Your task to perform on an android device: Open notification settings Image 0: 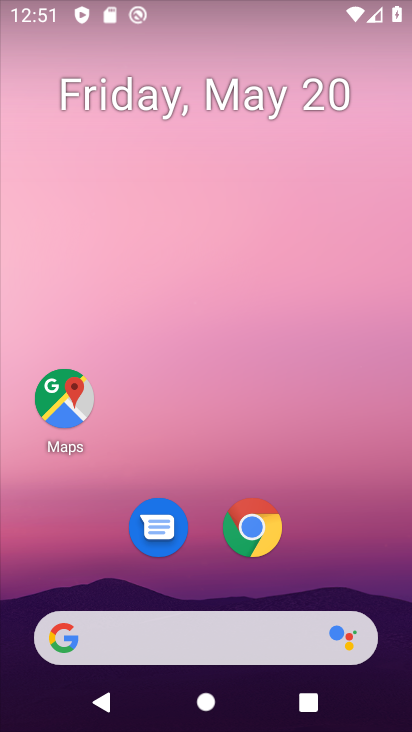
Step 0: drag from (241, 469) to (228, 27)
Your task to perform on an android device: Open notification settings Image 1: 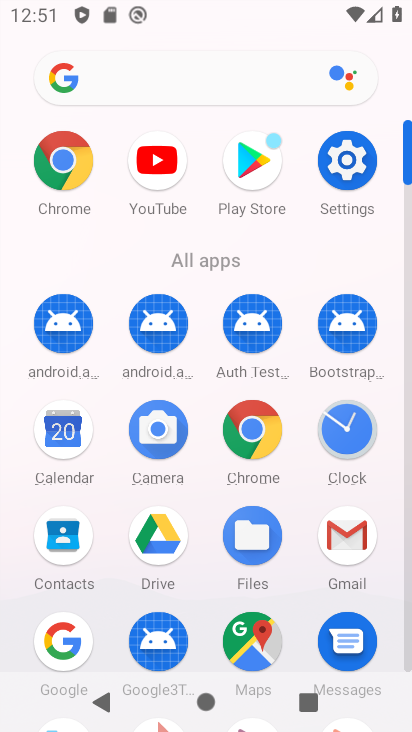
Step 1: click (339, 154)
Your task to perform on an android device: Open notification settings Image 2: 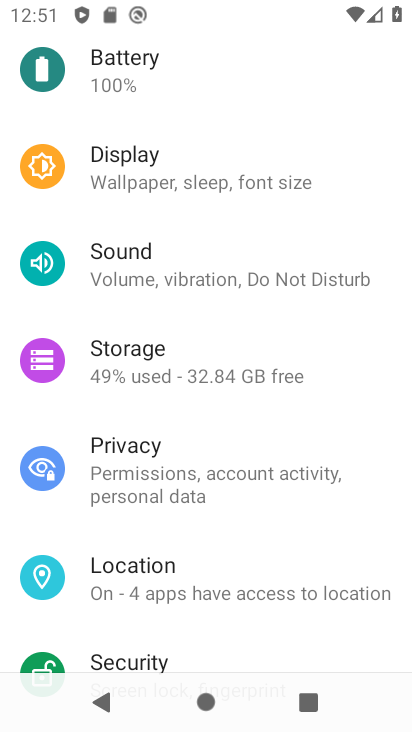
Step 2: drag from (253, 222) to (240, 561)
Your task to perform on an android device: Open notification settings Image 3: 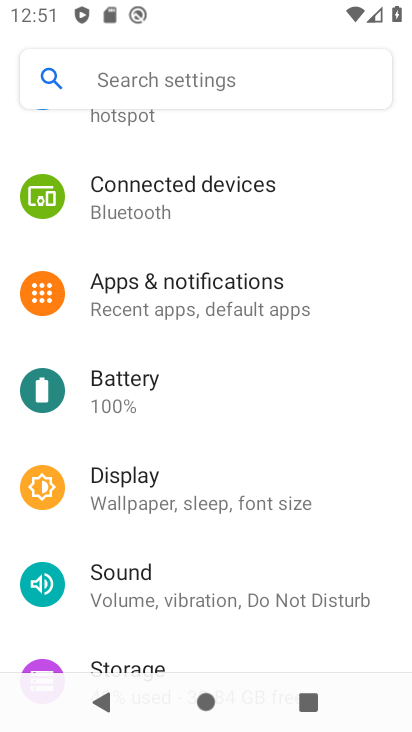
Step 3: click (257, 298)
Your task to perform on an android device: Open notification settings Image 4: 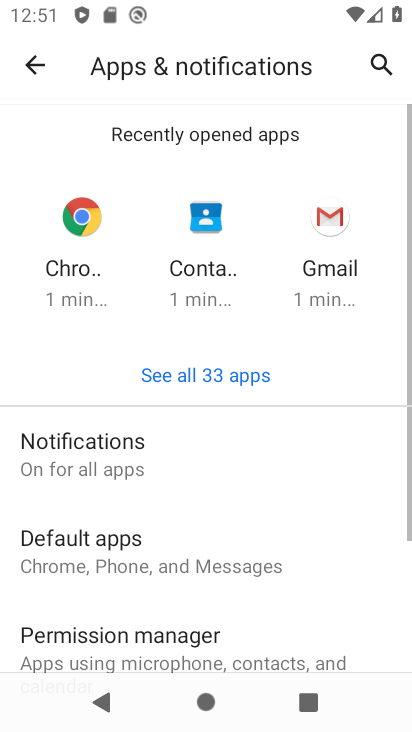
Step 4: click (178, 457)
Your task to perform on an android device: Open notification settings Image 5: 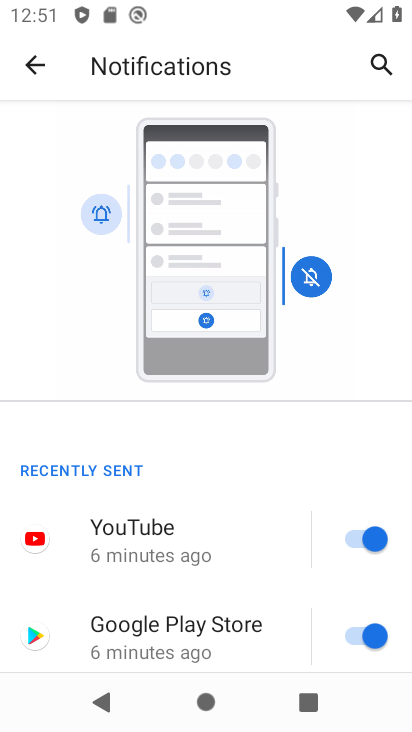
Step 5: task complete